Your task to perform on an android device: move an email to a new category in the gmail app Image 0: 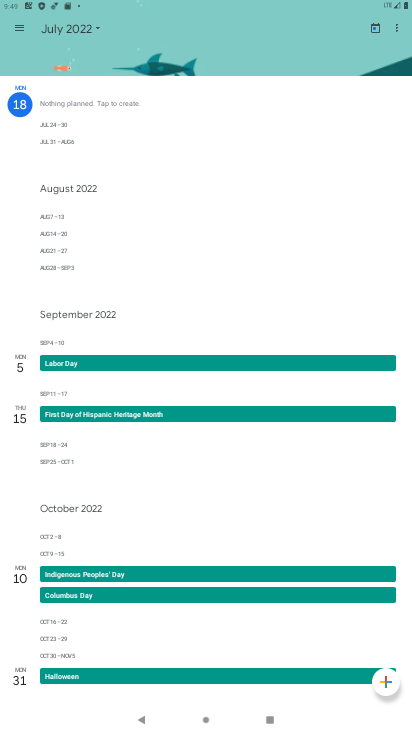
Step 0: press home button
Your task to perform on an android device: move an email to a new category in the gmail app Image 1: 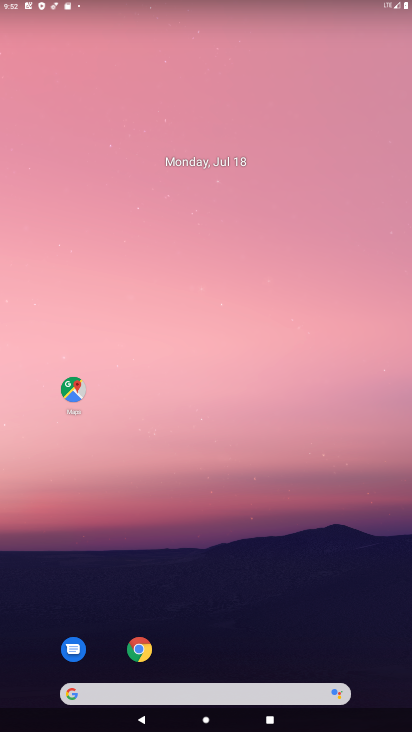
Step 1: drag from (167, 311) to (287, 10)
Your task to perform on an android device: move an email to a new category in the gmail app Image 2: 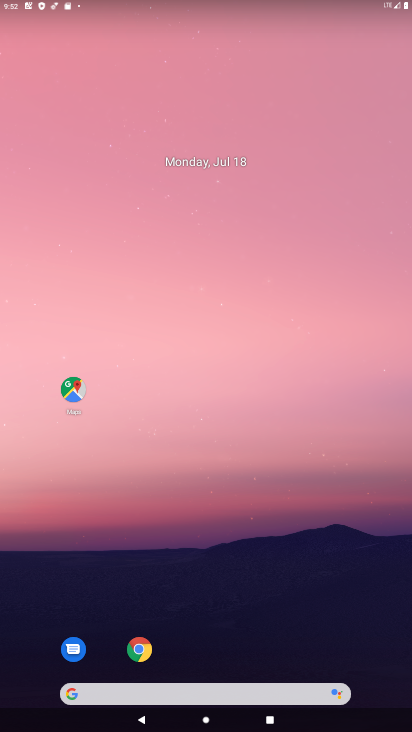
Step 2: drag from (168, 649) to (206, 8)
Your task to perform on an android device: move an email to a new category in the gmail app Image 3: 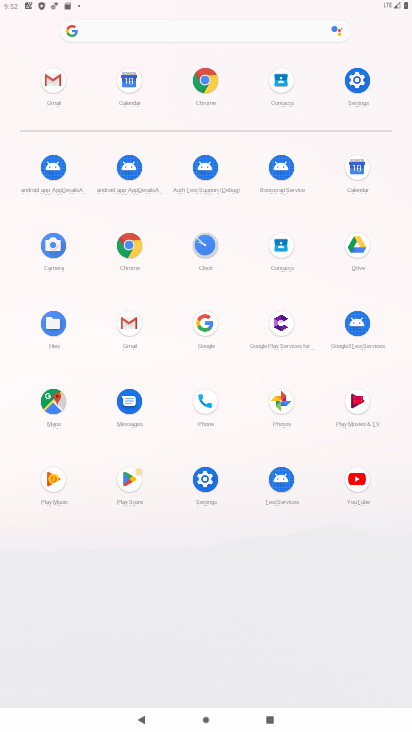
Step 3: click (57, 84)
Your task to perform on an android device: move an email to a new category in the gmail app Image 4: 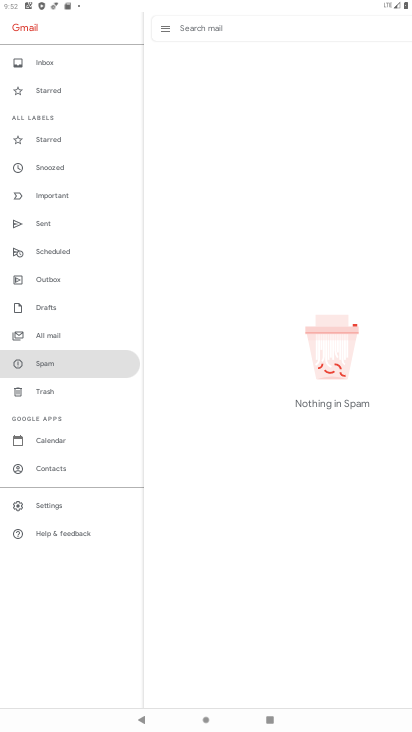
Step 4: click (44, 333)
Your task to perform on an android device: move an email to a new category in the gmail app Image 5: 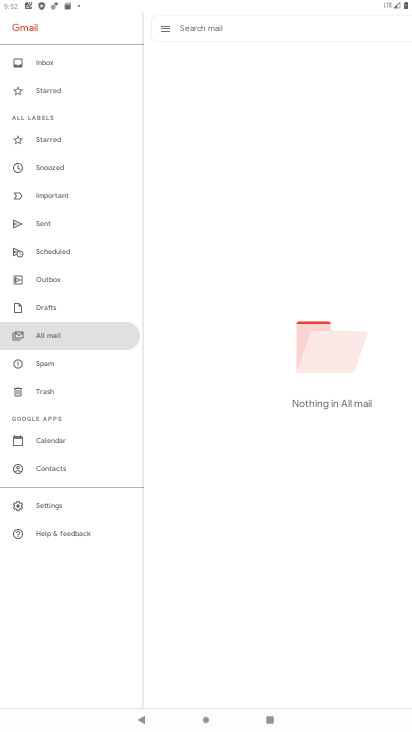
Step 5: task complete